Your task to perform on an android device: stop showing notifications on the lock screen Image 0: 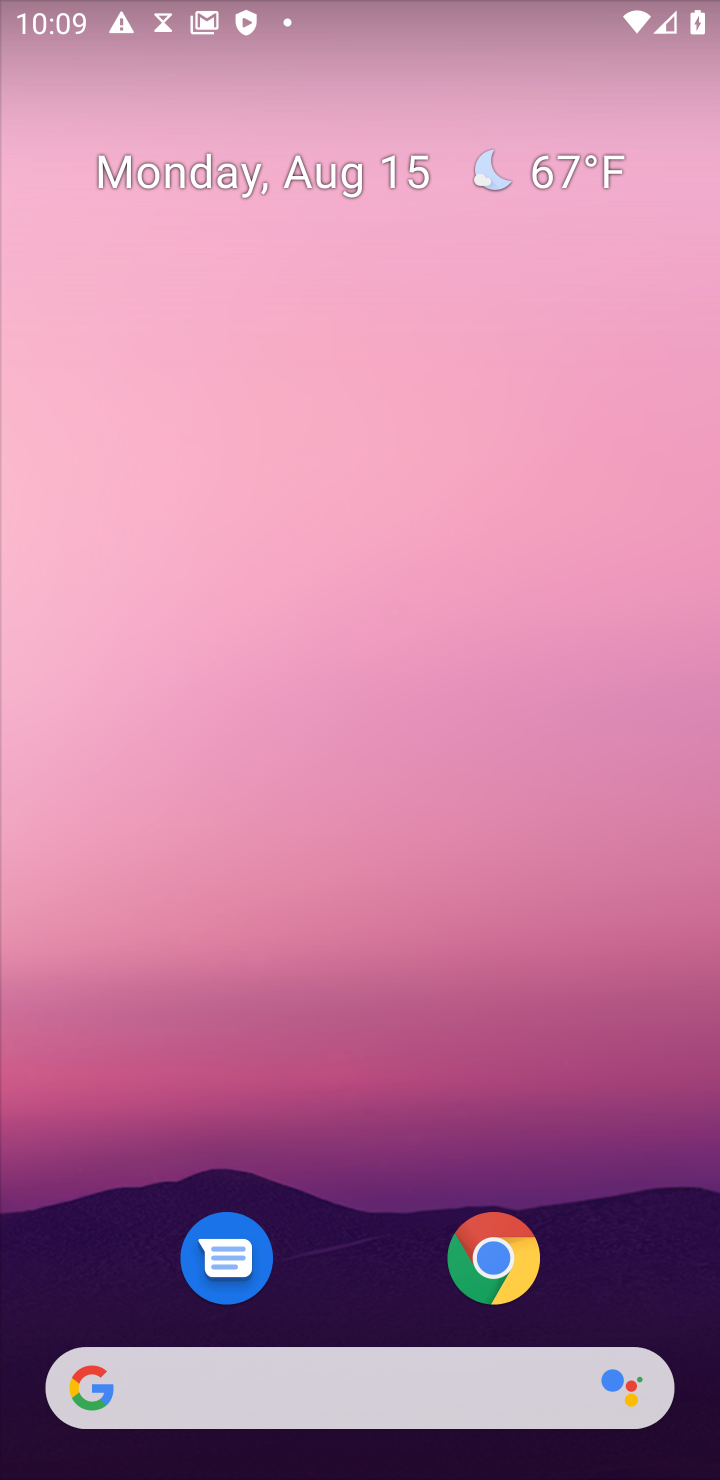
Step 0: drag from (364, 1318) to (414, 70)
Your task to perform on an android device: stop showing notifications on the lock screen Image 1: 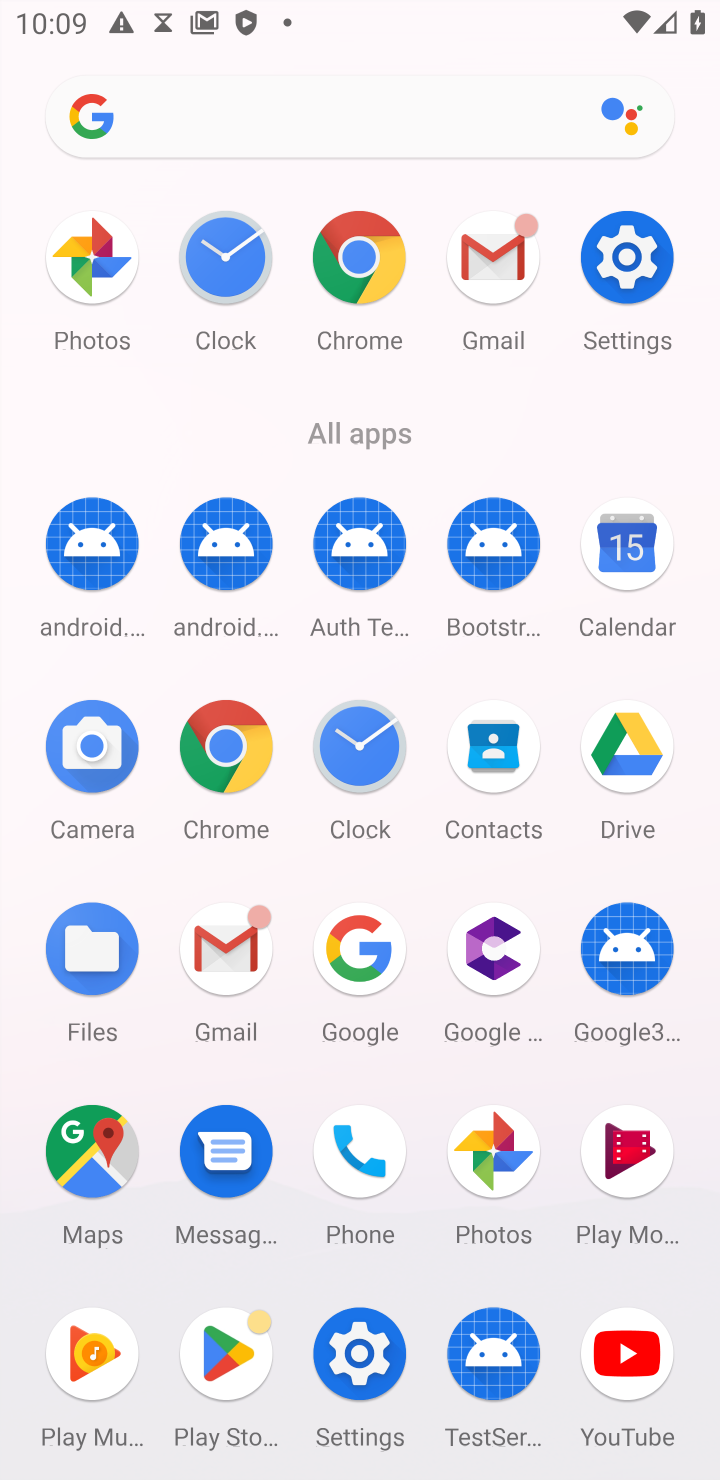
Step 1: click (374, 1352)
Your task to perform on an android device: stop showing notifications on the lock screen Image 2: 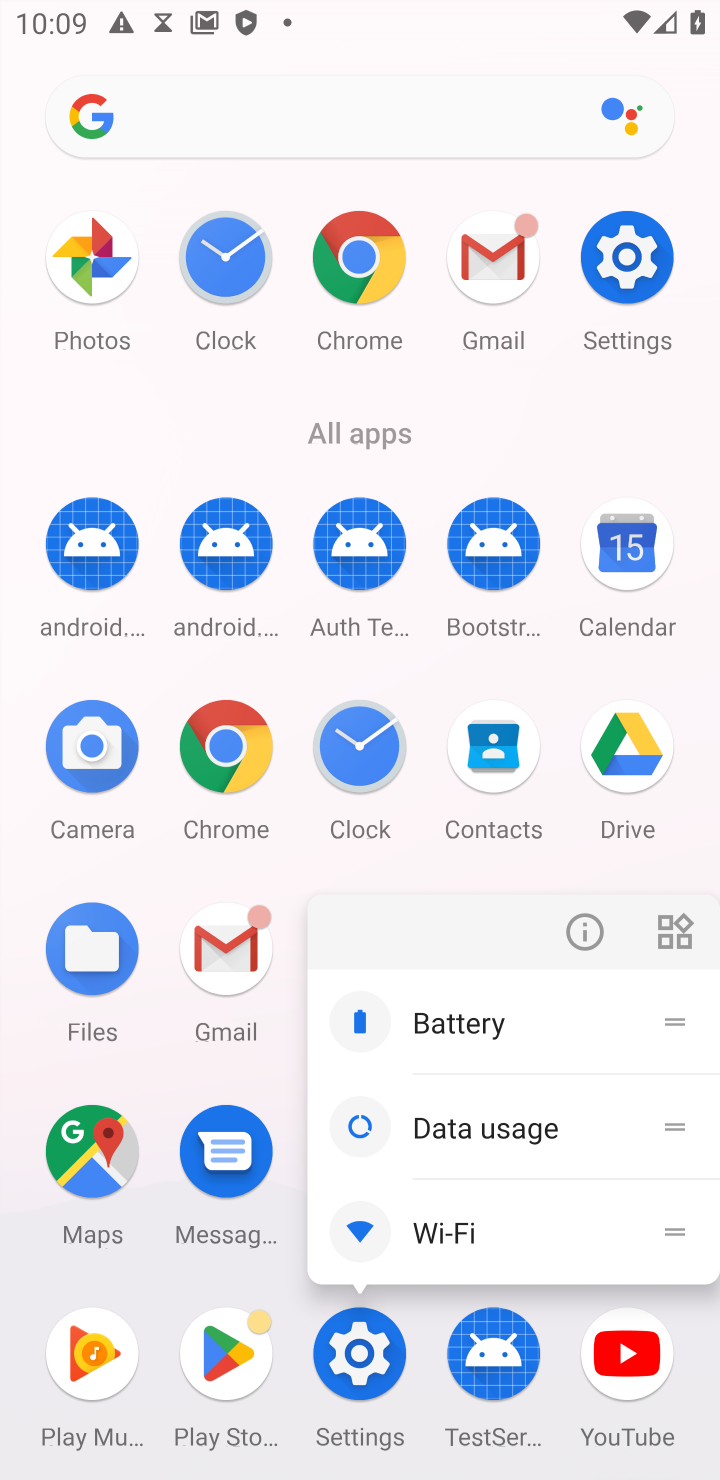
Step 2: click (366, 1347)
Your task to perform on an android device: stop showing notifications on the lock screen Image 3: 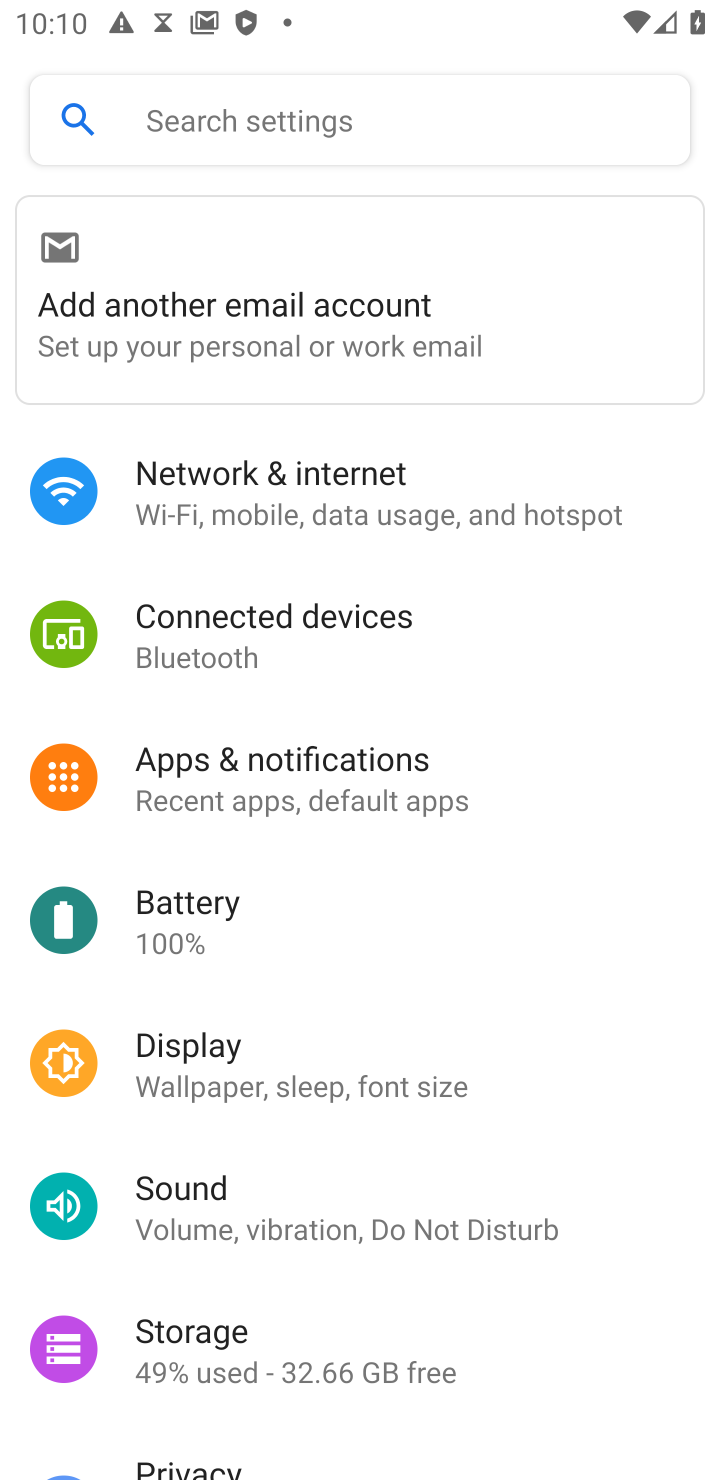
Step 3: click (316, 805)
Your task to perform on an android device: stop showing notifications on the lock screen Image 4: 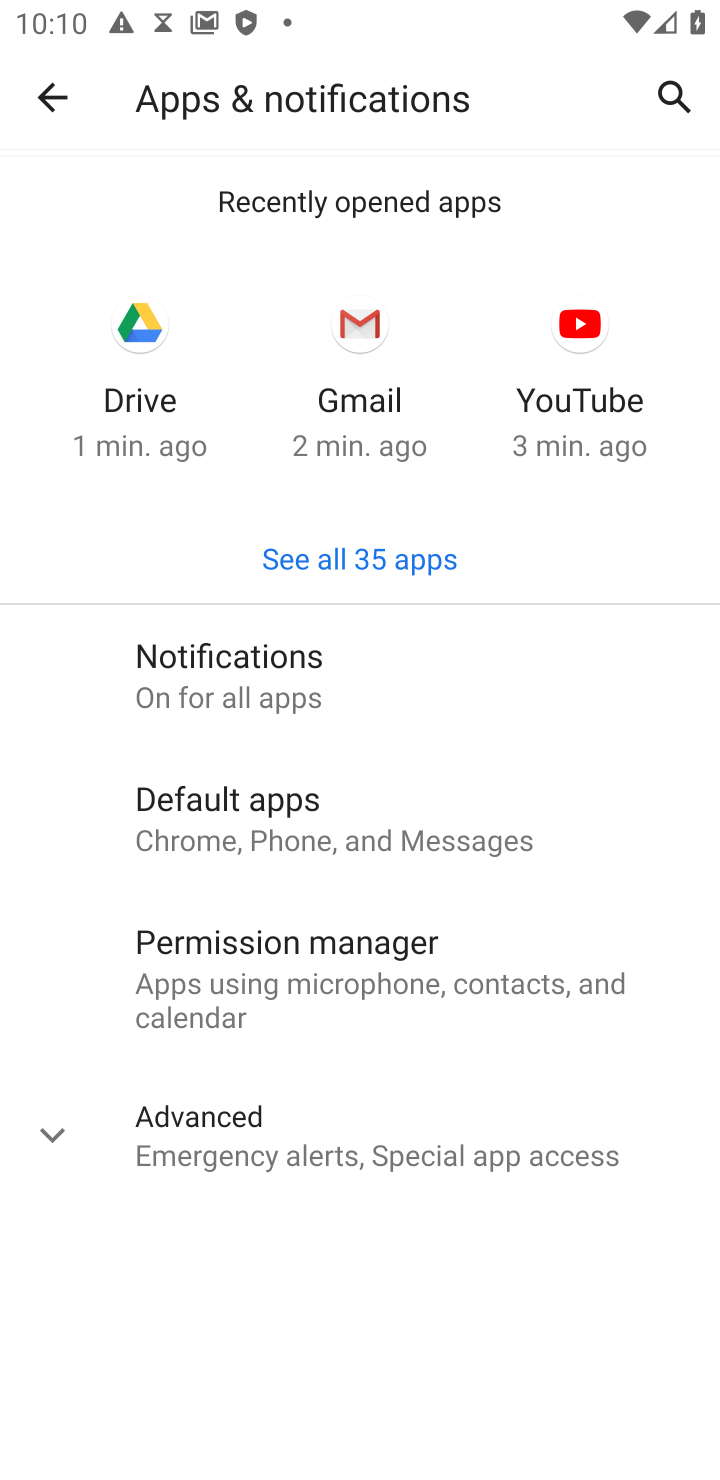
Step 4: click (237, 664)
Your task to perform on an android device: stop showing notifications on the lock screen Image 5: 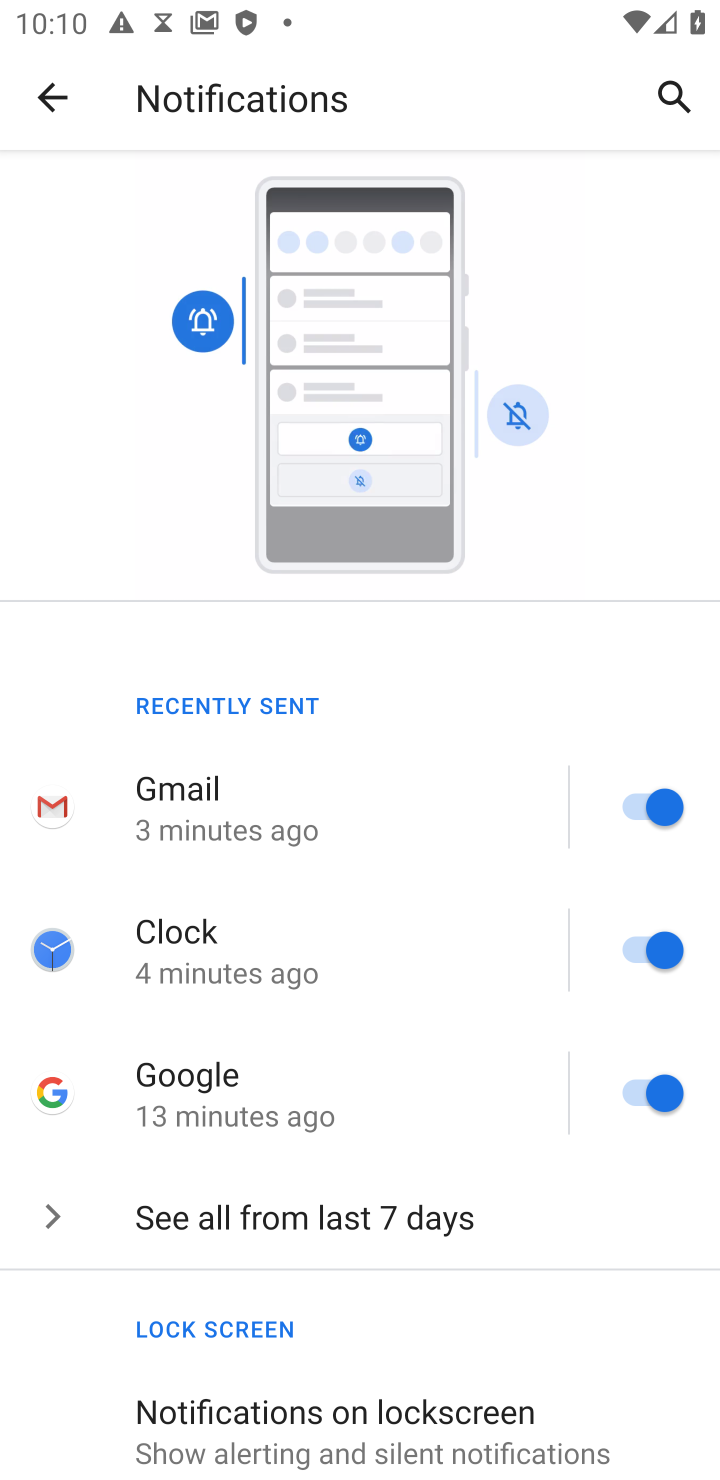
Step 5: click (293, 1428)
Your task to perform on an android device: stop showing notifications on the lock screen Image 6: 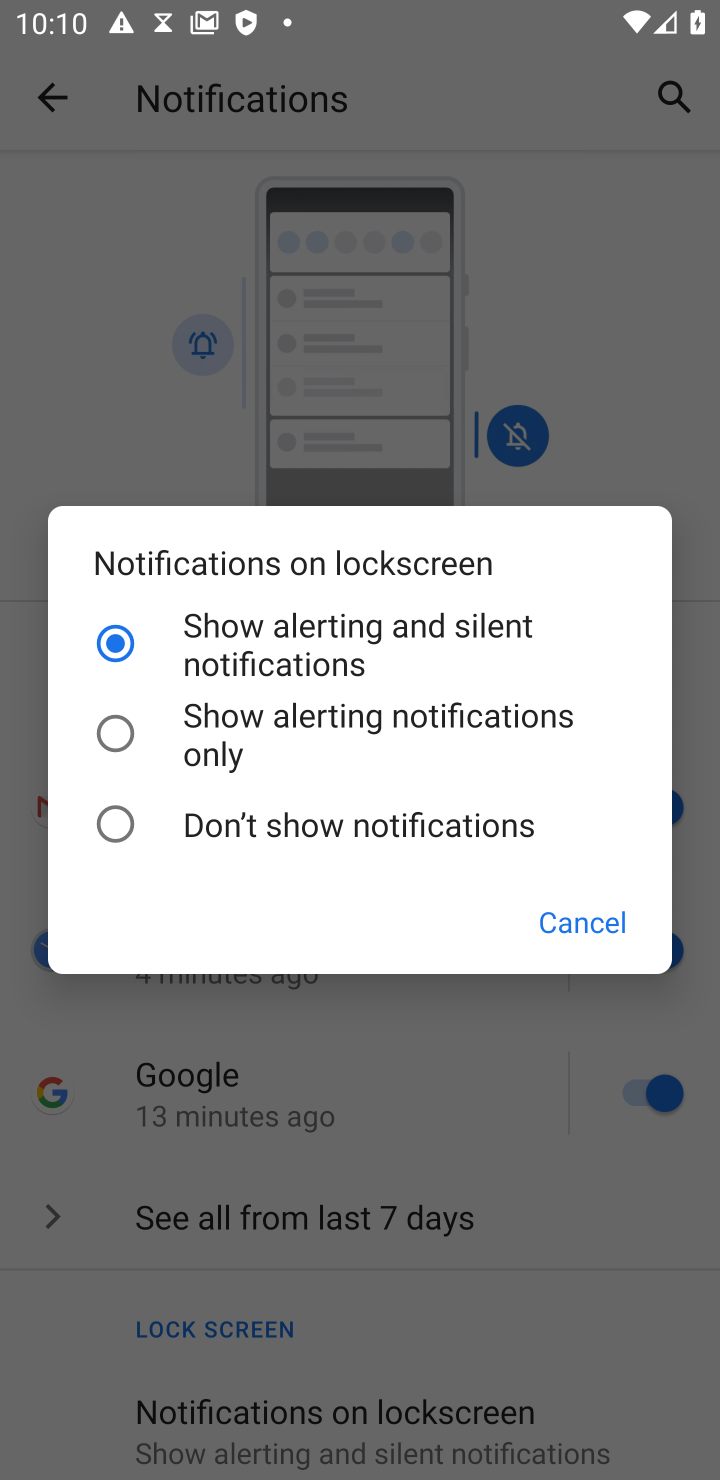
Step 6: click (200, 822)
Your task to perform on an android device: stop showing notifications on the lock screen Image 7: 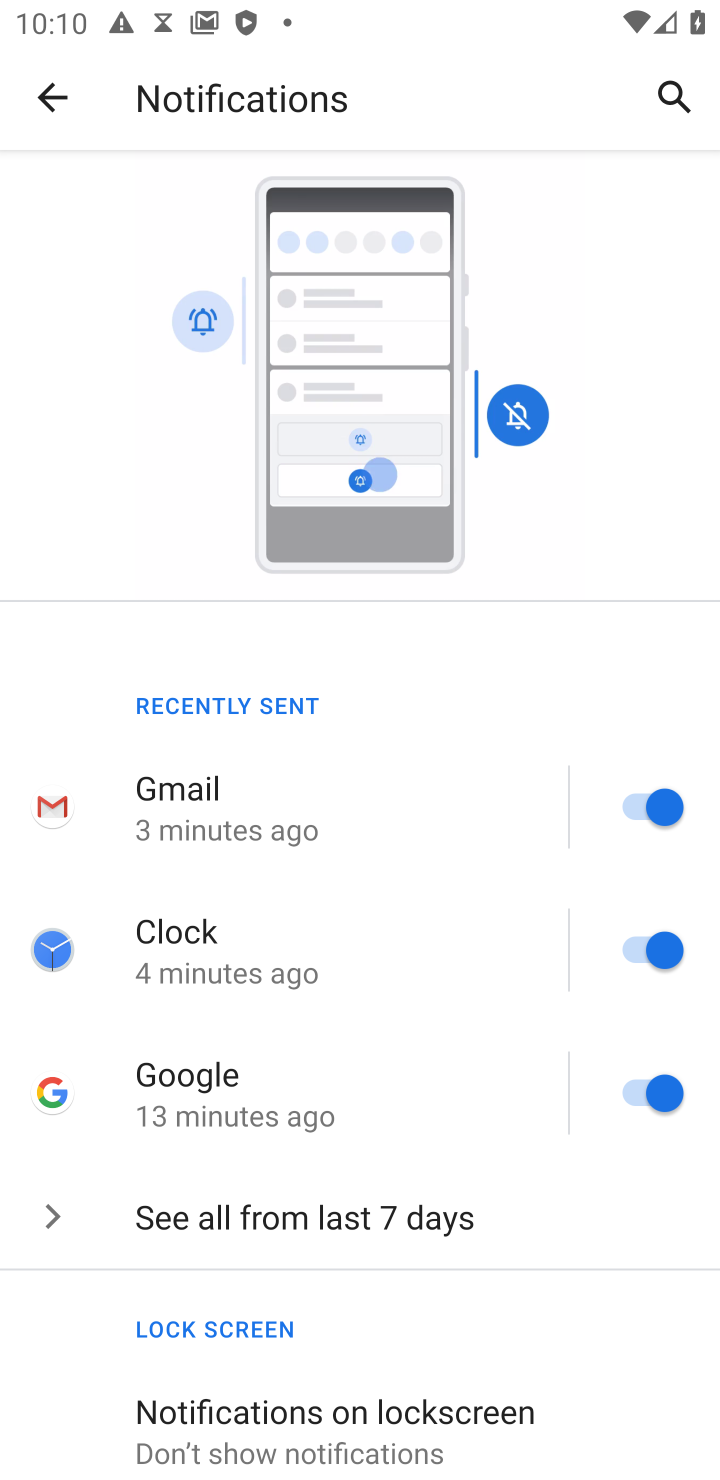
Step 7: task complete